Your task to perform on an android device: allow cookies in the chrome app Image 0: 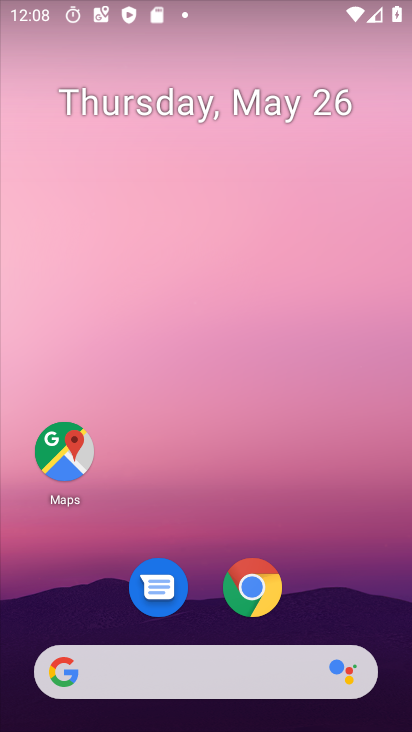
Step 0: drag from (294, 693) to (356, 72)
Your task to perform on an android device: allow cookies in the chrome app Image 1: 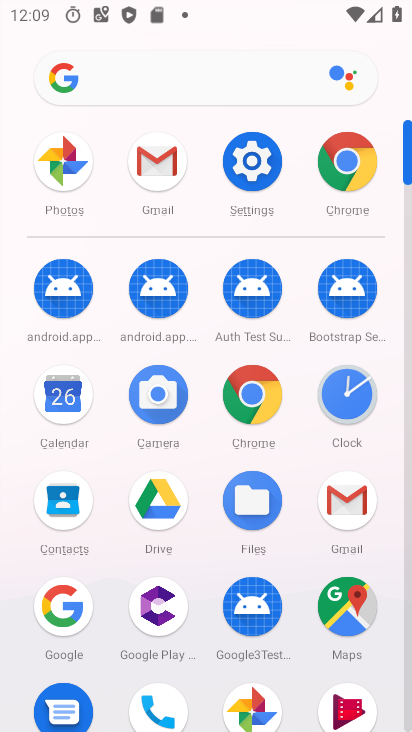
Step 1: click (336, 166)
Your task to perform on an android device: allow cookies in the chrome app Image 2: 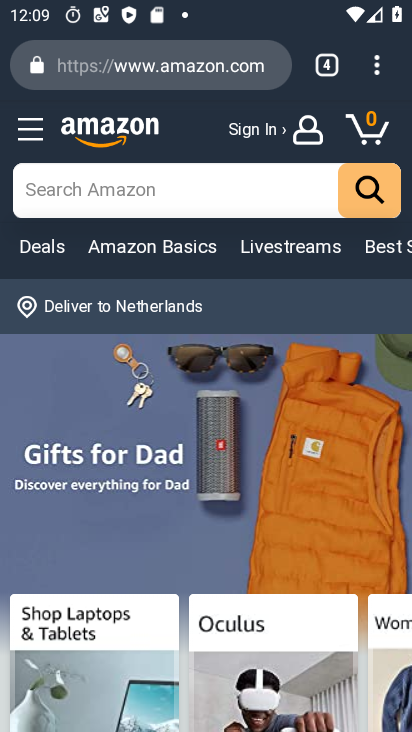
Step 2: click (367, 82)
Your task to perform on an android device: allow cookies in the chrome app Image 3: 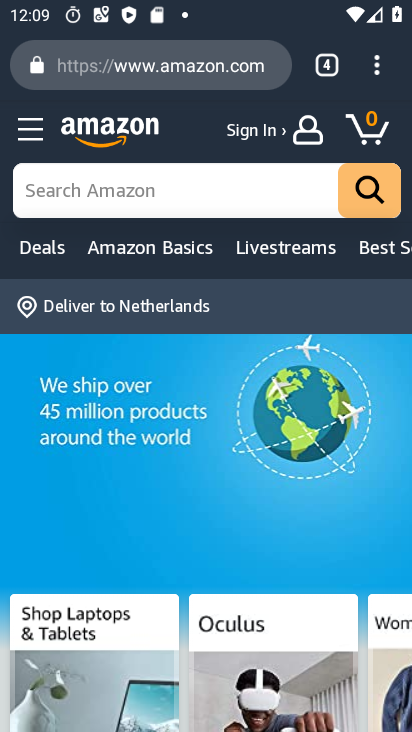
Step 3: click (369, 73)
Your task to perform on an android device: allow cookies in the chrome app Image 4: 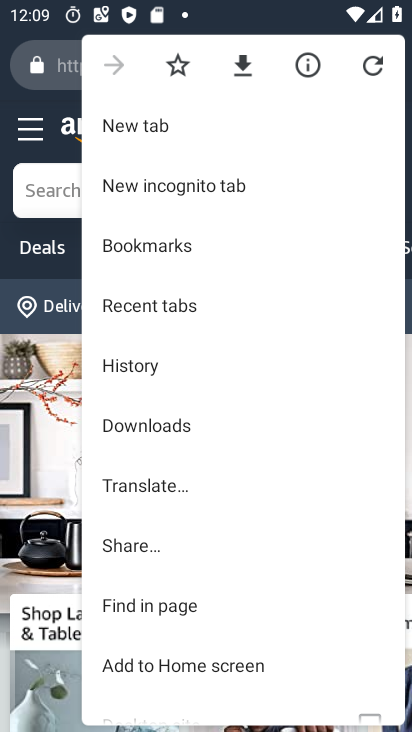
Step 4: drag from (168, 662) to (147, 445)
Your task to perform on an android device: allow cookies in the chrome app Image 5: 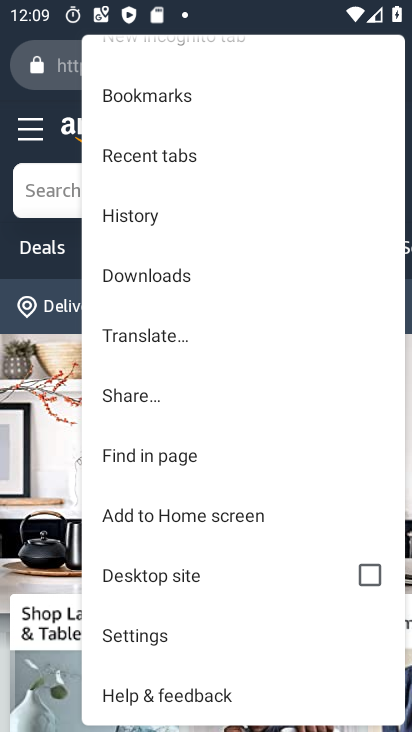
Step 5: click (148, 640)
Your task to perform on an android device: allow cookies in the chrome app Image 6: 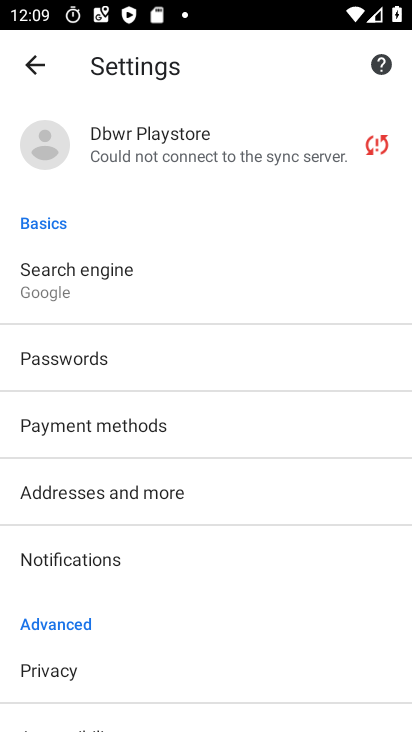
Step 6: drag from (136, 617) to (190, 400)
Your task to perform on an android device: allow cookies in the chrome app Image 7: 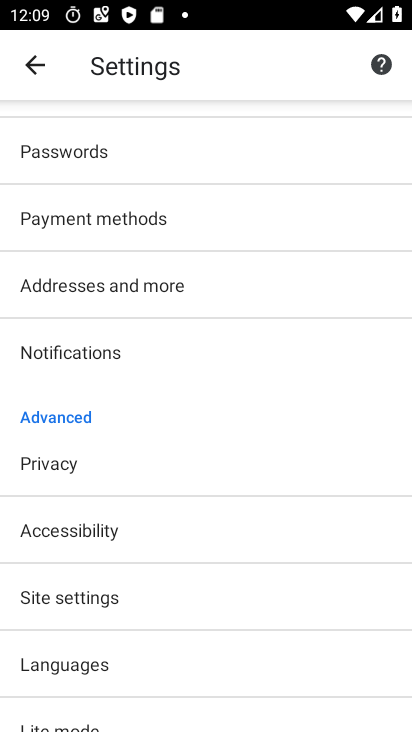
Step 7: click (92, 591)
Your task to perform on an android device: allow cookies in the chrome app Image 8: 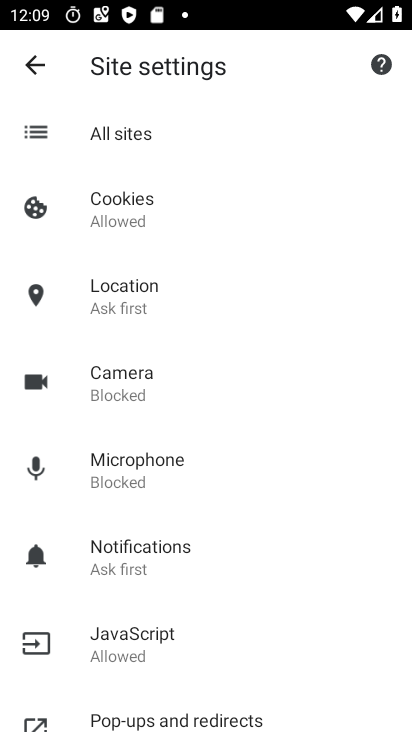
Step 8: click (147, 215)
Your task to perform on an android device: allow cookies in the chrome app Image 9: 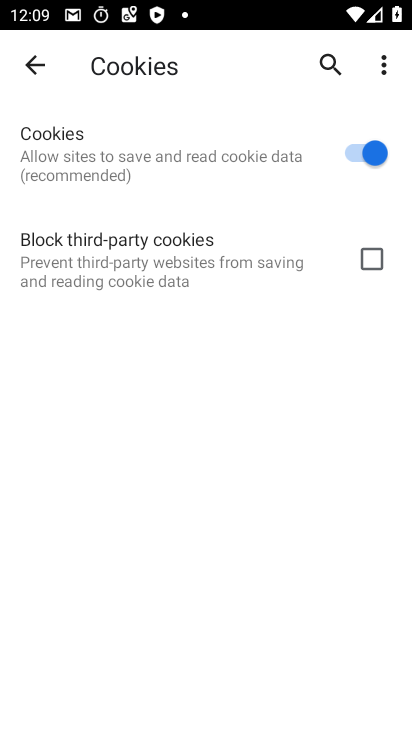
Step 9: click (360, 154)
Your task to perform on an android device: allow cookies in the chrome app Image 10: 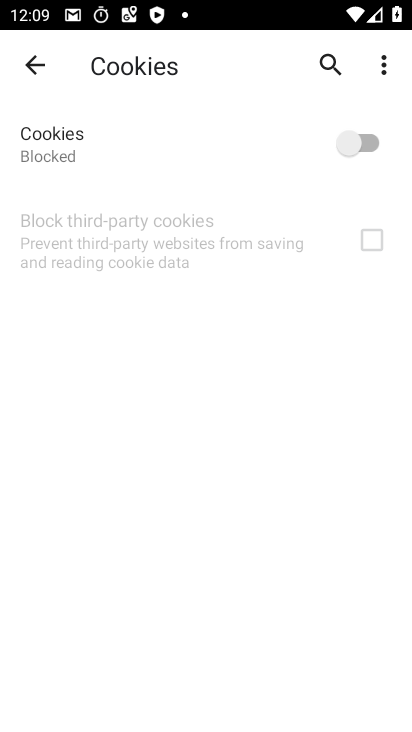
Step 10: click (347, 153)
Your task to perform on an android device: allow cookies in the chrome app Image 11: 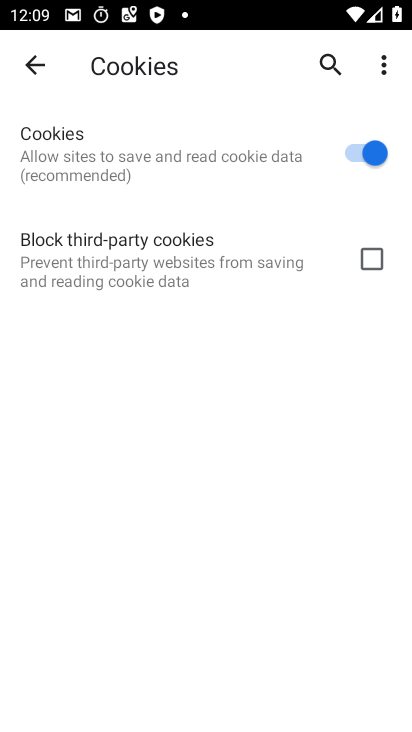
Step 11: task complete